Your task to perform on an android device: all mails in gmail Image 0: 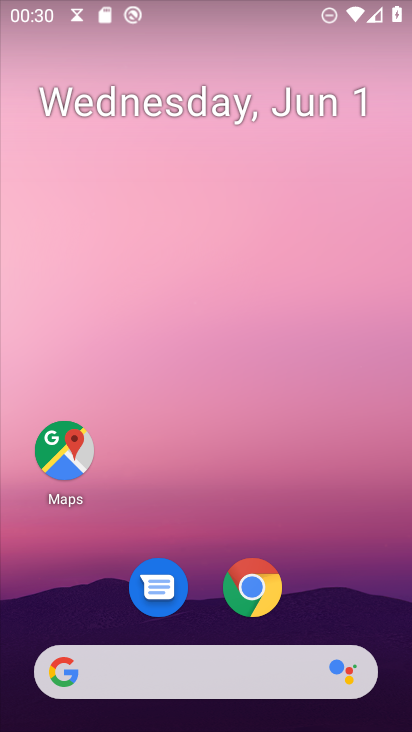
Step 0: drag from (321, 605) to (353, 0)
Your task to perform on an android device: all mails in gmail Image 1: 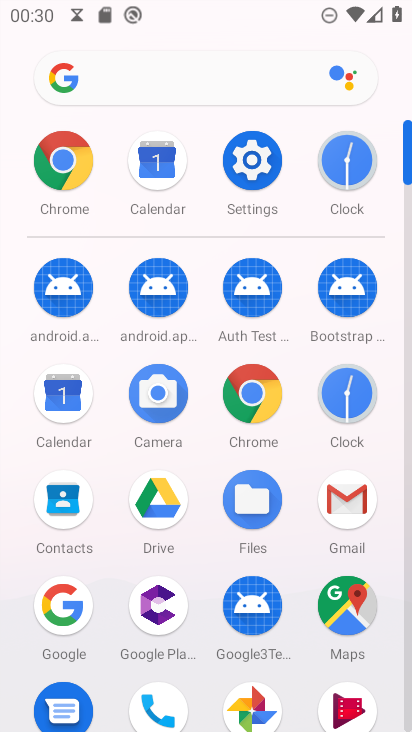
Step 1: click (330, 504)
Your task to perform on an android device: all mails in gmail Image 2: 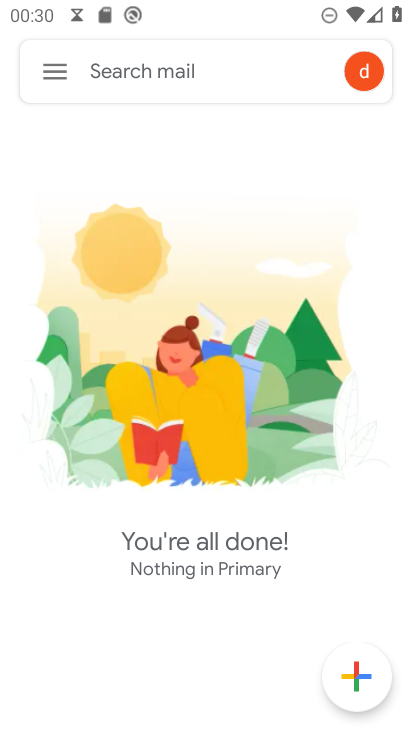
Step 2: click (49, 81)
Your task to perform on an android device: all mails in gmail Image 3: 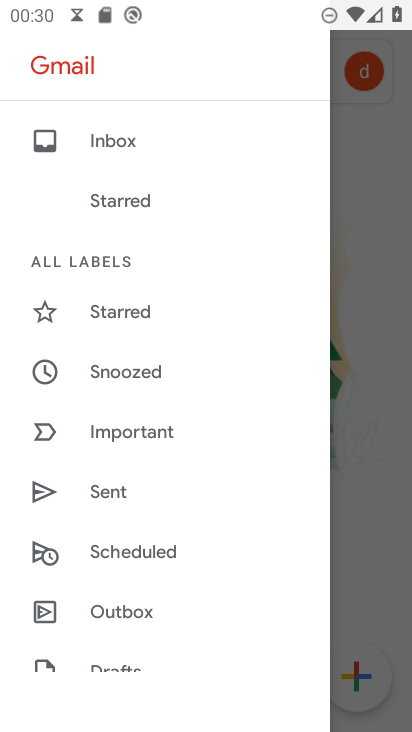
Step 3: drag from (112, 603) to (116, 313)
Your task to perform on an android device: all mails in gmail Image 4: 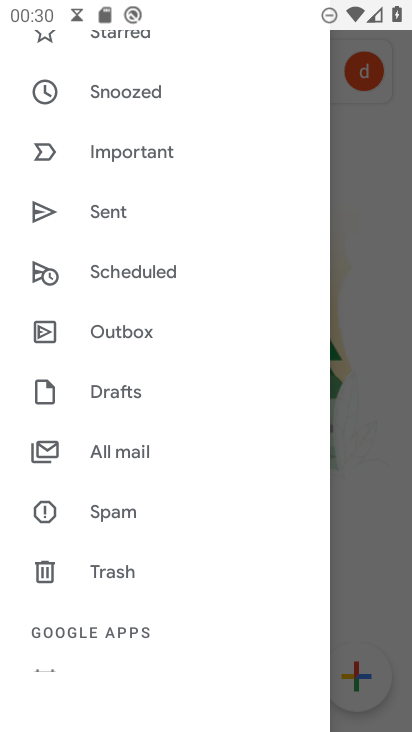
Step 4: click (106, 447)
Your task to perform on an android device: all mails in gmail Image 5: 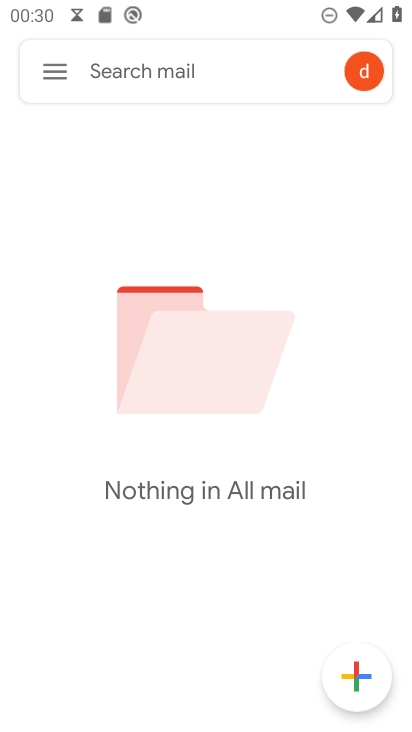
Step 5: task complete